Your task to perform on an android device: Show me popular videos on Youtube Image 0: 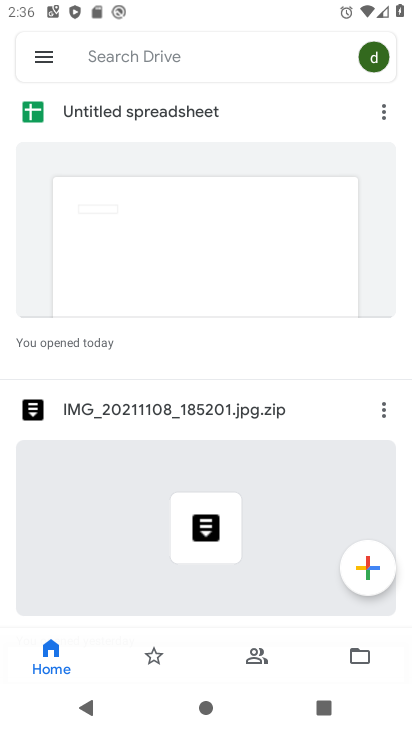
Step 0: press home button
Your task to perform on an android device: Show me popular videos on Youtube Image 1: 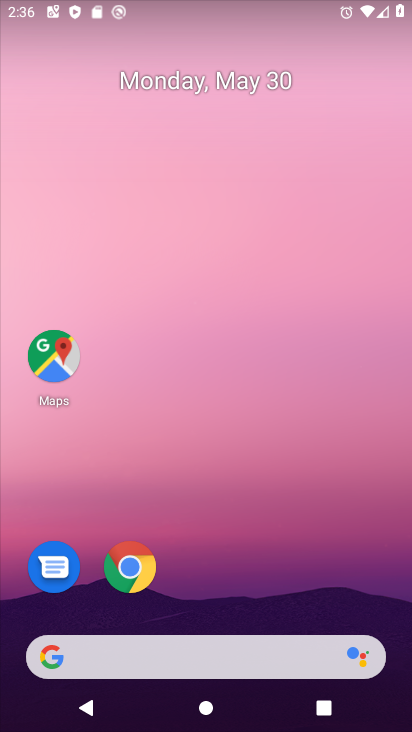
Step 1: drag from (193, 608) to (267, 173)
Your task to perform on an android device: Show me popular videos on Youtube Image 2: 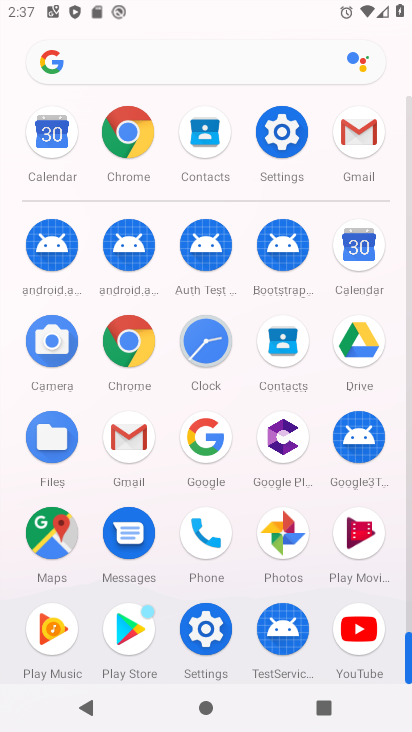
Step 2: click (360, 634)
Your task to perform on an android device: Show me popular videos on Youtube Image 3: 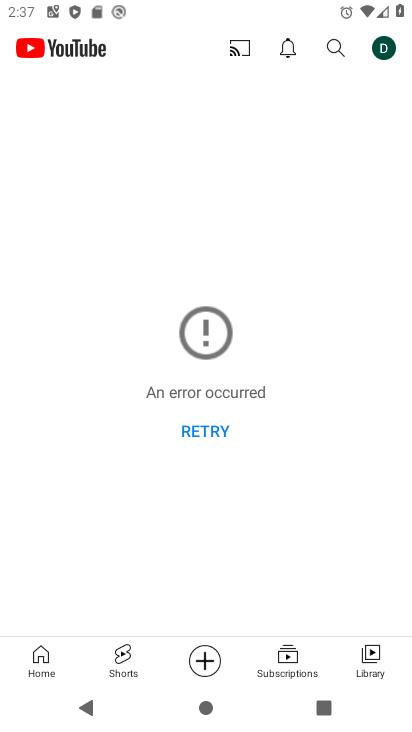
Step 3: click (196, 428)
Your task to perform on an android device: Show me popular videos on Youtube Image 4: 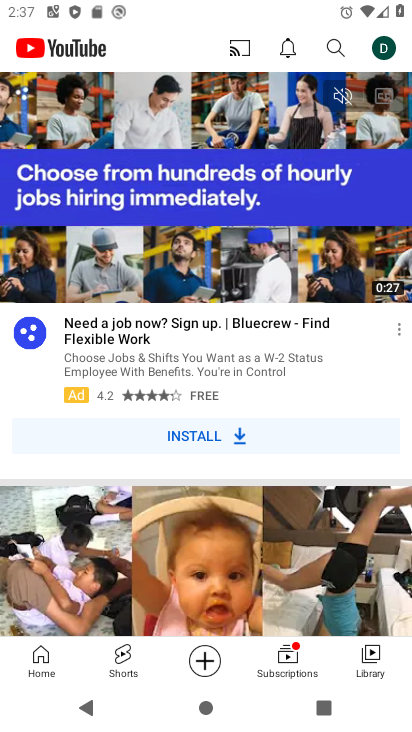
Step 4: drag from (163, 271) to (149, 532)
Your task to perform on an android device: Show me popular videos on Youtube Image 5: 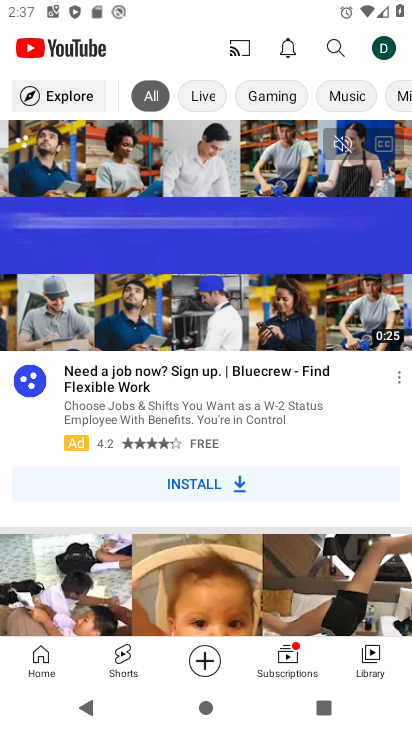
Step 5: click (65, 86)
Your task to perform on an android device: Show me popular videos on Youtube Image 6: 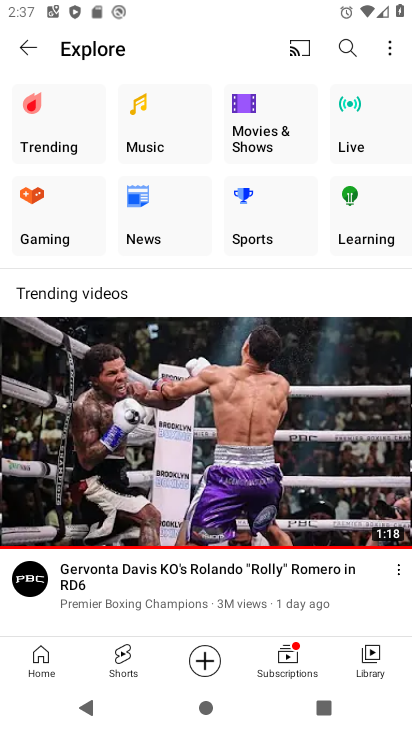
Step 6: click (50, 119)
Your task to perform on an android device: Show me popular videos on Youtube Image 7: 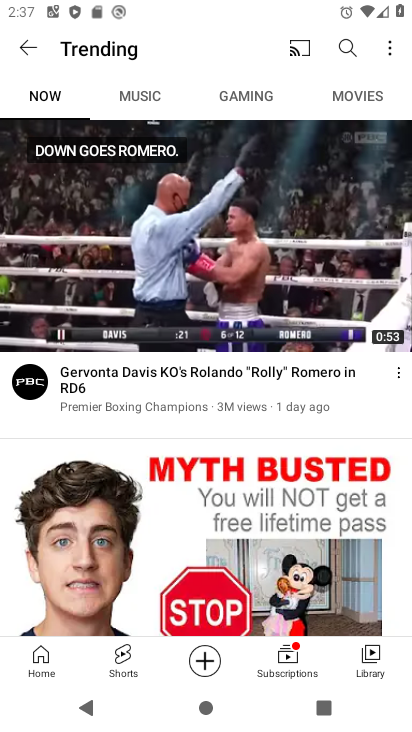
Step 7: task complete